Your task to perform on an android device: Clear all items from cart on newegg.com. Add "panasonic triple a" to the cart on newegg.com Image 0: 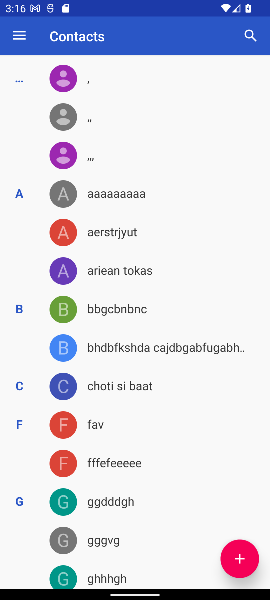
Step 0: press home button
Your task to perform on an android device: Clear all items from cart on newegg.com. Add "panasonic triple a" to the cart on newegg.com Image 1: 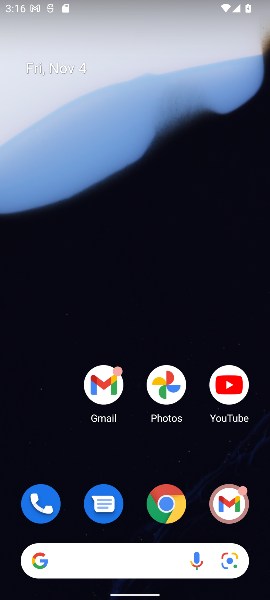
Step 1: click (168, 506)
Your task to perform on an android device: Clear all items from cart on newegg.com. Add "panasonic triple a" to the cart on newegg.com Image 2: 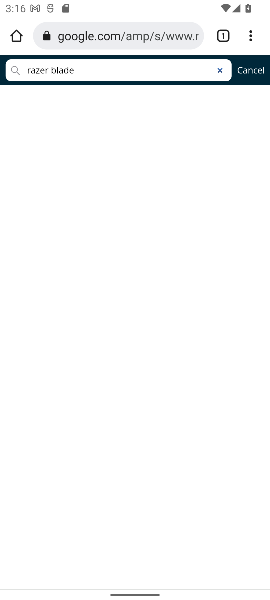
Step 2: click (82, 41)
Your task to perform on an android device: Clear all items from cart on newegg.com. Add "panasonic triple a" to the cart on newegg.com Image 3: 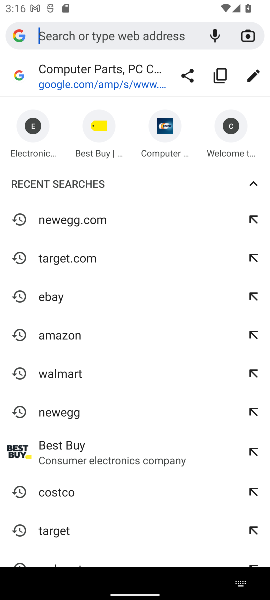
Step 3: type "newegg.com"
Your task to perform on an android device: Clear all items from cart on newegg.com. Add "panasonic triple a" to the cart on newegg.com Image 4: 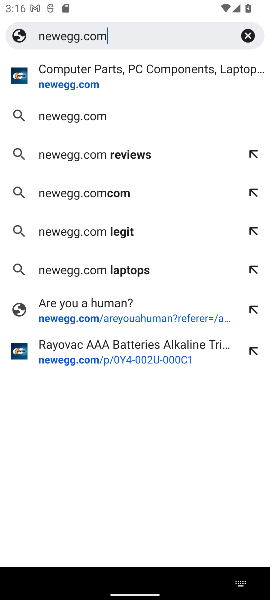
Step 4: click (70, 122)
Your task to perform on an android device: Clear all items from cart on newegg.com. Add "panasonic triple a" to the cart on newegg.com Image 5: 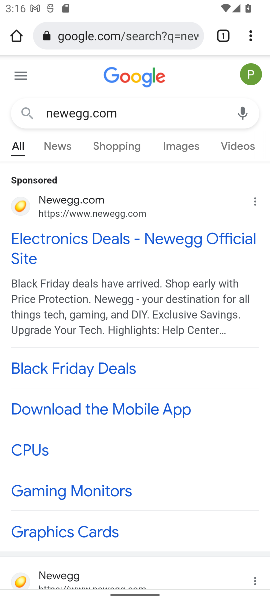
Step 5: drag from (70, 323) to (115, 102)
Your task to perform on an android device: Clear all items from cart on newegg.com. Add "panasonic triple a" to the cart on newegg.com Image 6: 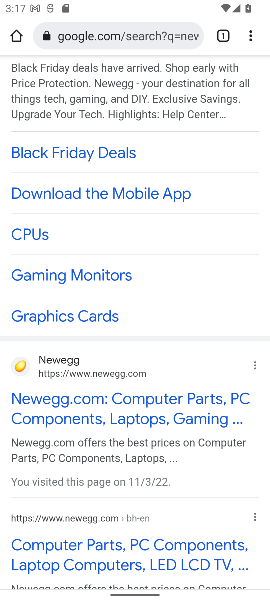
Step 6: click (43, 373)
Your task to perform on an android device: Clear all items from cart on newegg.com. Add "panasonic triple a" to the cart on newegg.com Image 7: 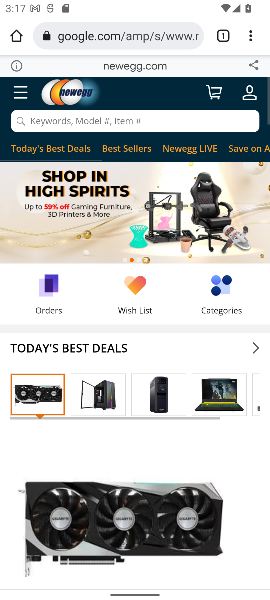
Step 7: click (210, 98)
Your task to perform on an android device: Clear all items from cart on newegg.com. Add "panasonic triple a" to the cart on newegg.com Image 8: 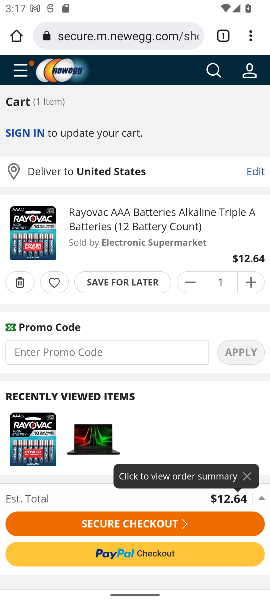
Step 8: click (18, 274)
Your task to perform on an android device: Clear all items from cart on newegg.com. Add "panasonic triple a" to the cart on newegg.com Image 9: 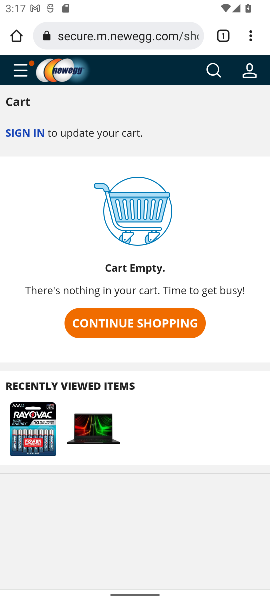
Step 9: click (213, 71)
Your task to perform on an android device: Clear all items from cart on newegg.com. Add "panasonic triple a" to the cart on newegg.com Image 10: 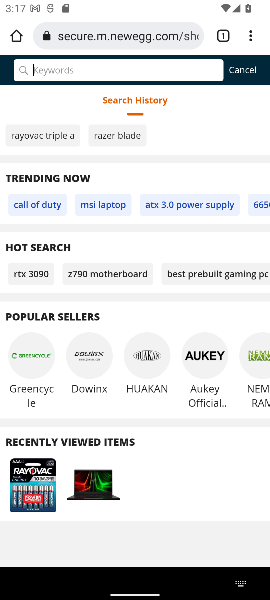
Step 10: type "panasonic triple a"
Your task to perform on an android device: Clear all items from cart on newegg.com. Add "panasonic triple a" to the cart on newegg.com Image 11: 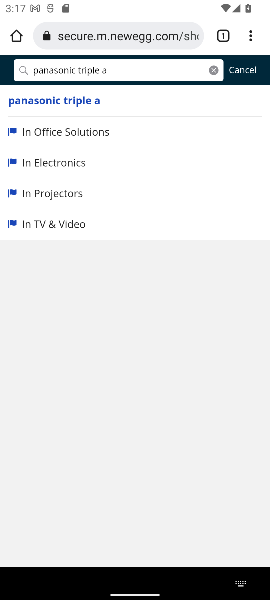
Step 11: click (76, 106)
Your task to perform on an android device: Clear all items from cart on newegg.com. Add "panasonic triple a" to the cart on newegg.com Image 12: 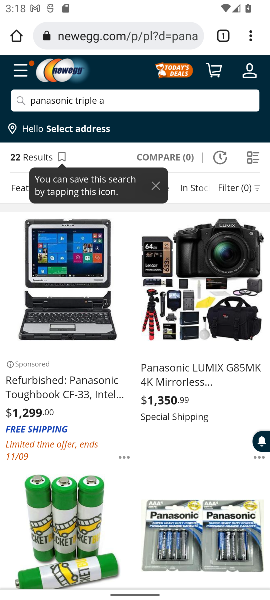
Step 12: drag from (135, 441) to (170, 260)
Your task to perform on an android device: Clear all items from cart on newegg.com. Add "panasonic triple a" to the cart on newegg.com Image 13: 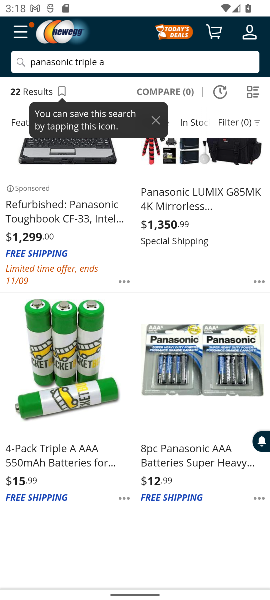
Step 13: click (190, 427)
Your task to perform on an android device: Clear all items from cart on newegg.com. Add "panasonic triple a" to the cart on newegg.com Image 14: 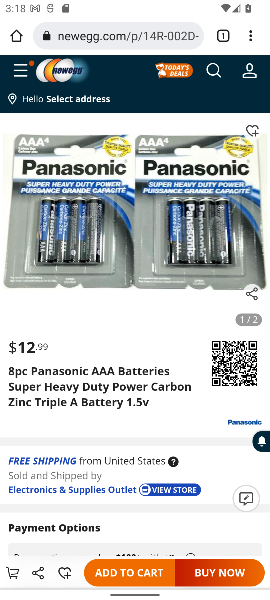
Step 14: click (128, 569)
Your task to perform on an android device: Clear all items from cart on newegg.com. Add "panasonic triple a" to the cart on newegg.com Image 15: 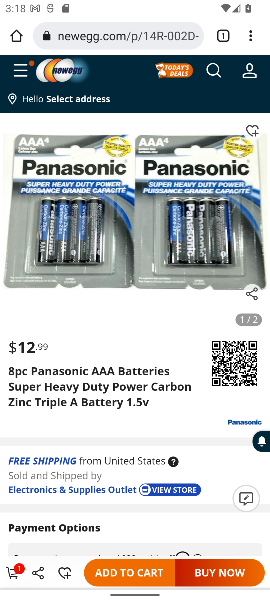
Step 15: task complete